Your task to perform on an android device: open app "Venmo" Image 0: 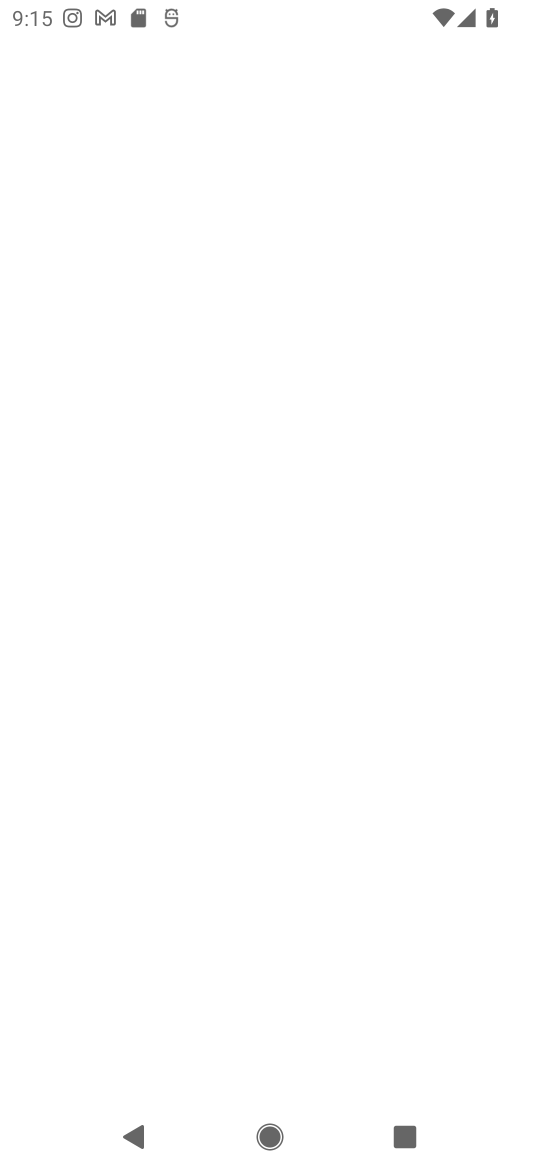
Step 0: press home button
Your task to perform on an android device: open app "Venmo" Image 1: 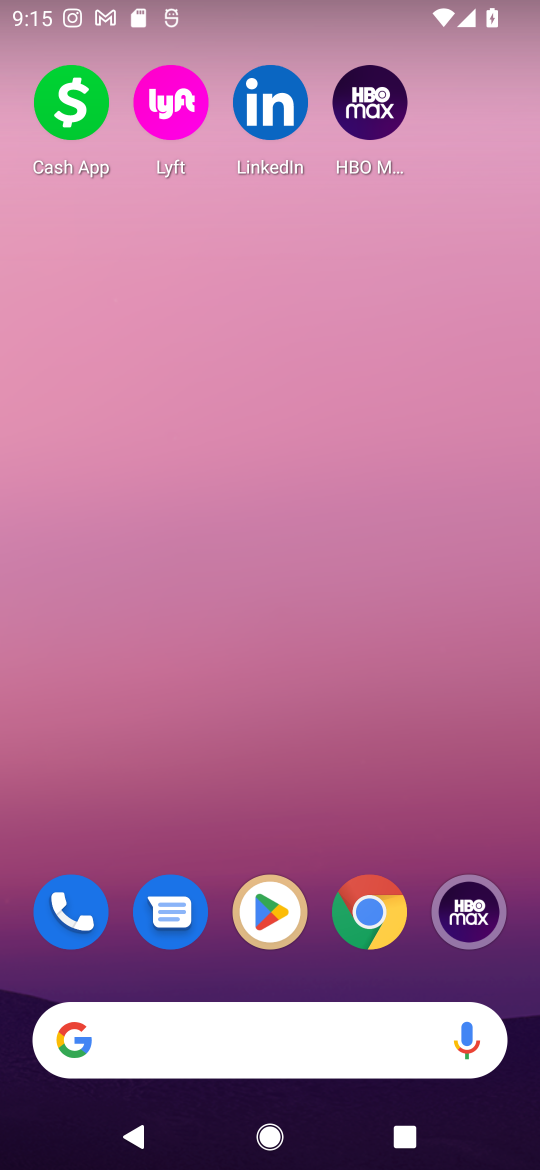
Step 1: click (275, 928)
Your task to perform on an android device: open app "Venmo" Image 2: 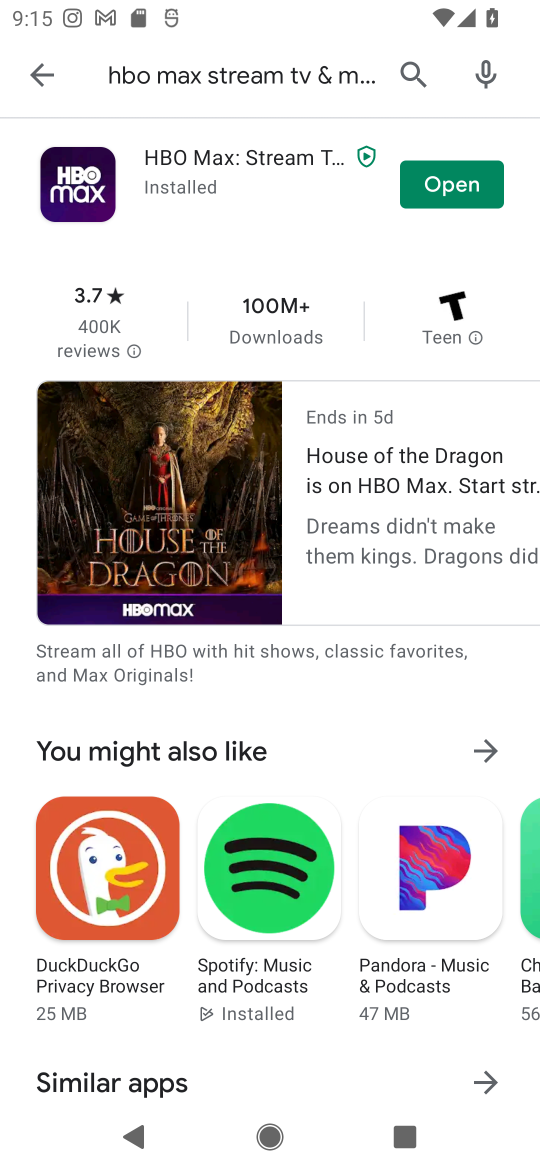
Step 2: click (411, 71)
Your task to perform on an android device: open app "Venmo" Image 3: 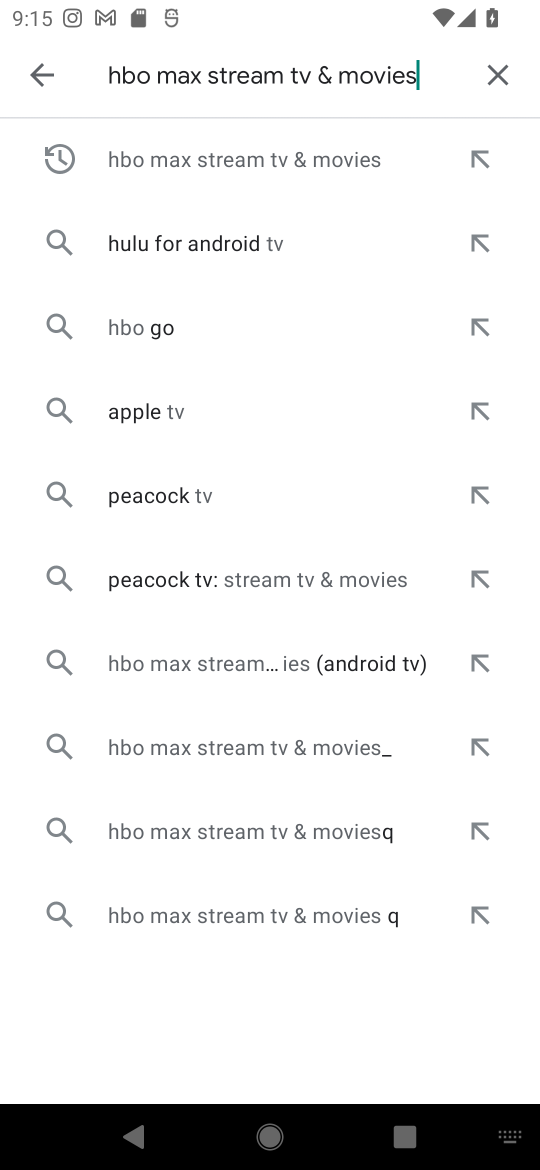
Step 3: click (499, 63)
Your task to perform on an android device: open app "Venmo" Image 4: 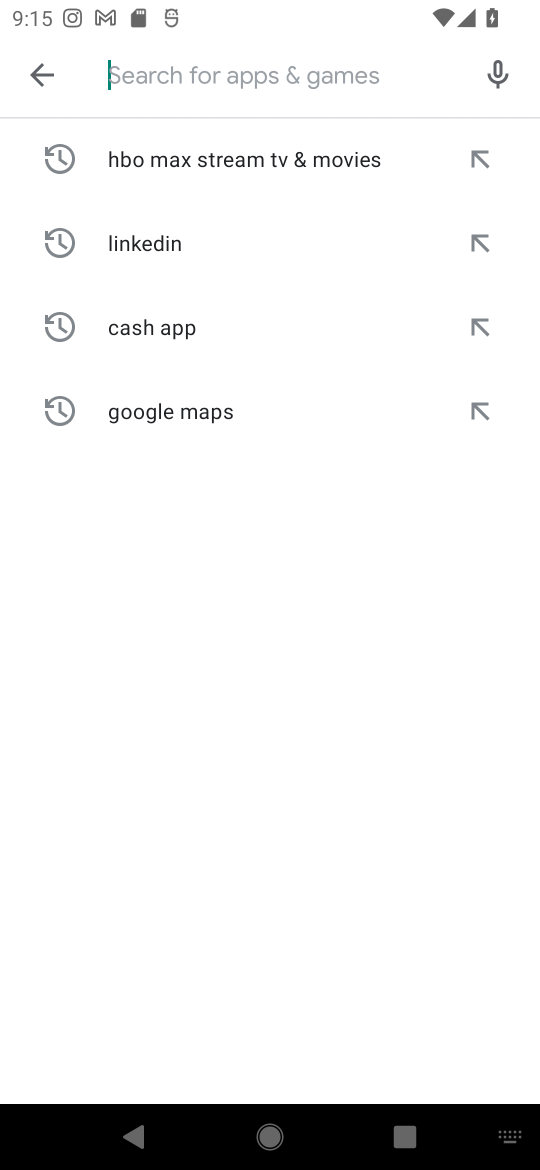
Step 4: type "Venmo"
Your task to perform on an android device: open app "Venmo" Image 5: 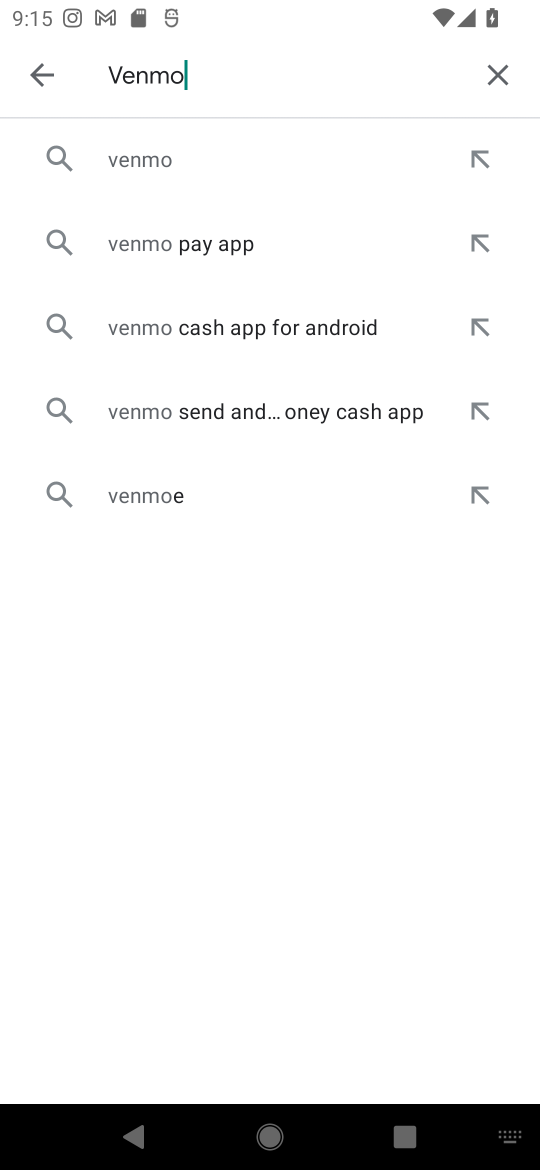
Step 5: click (142, 156)
Your task to perform on an android device: open app "Venmo" Image 6: 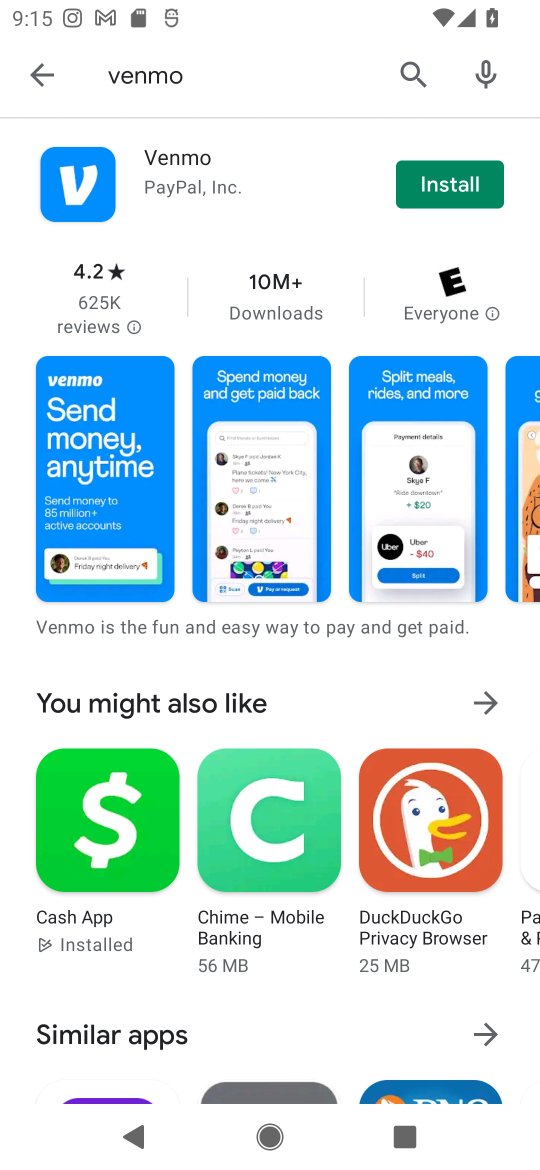
Step 6: task complete